Your task to perform on an android device: turn on notifications settings in the gmail app Image 0: 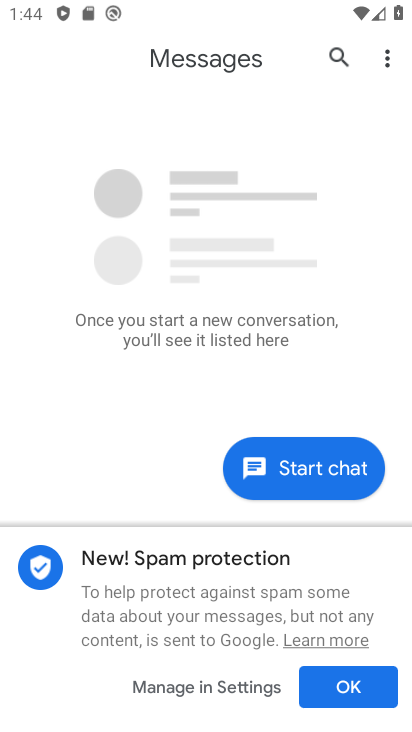
Step 0: press home button
Your task to perform on an android device: turn on notifications settings in the gmail app Image 1: 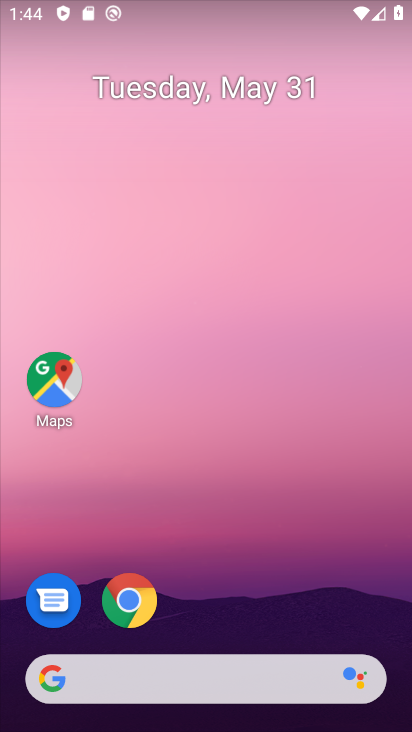
Step 1: drag from (228, 627) to (249, 10)
Your task to perform on an android device: turn on notifications settings in the gmail app Image 2: 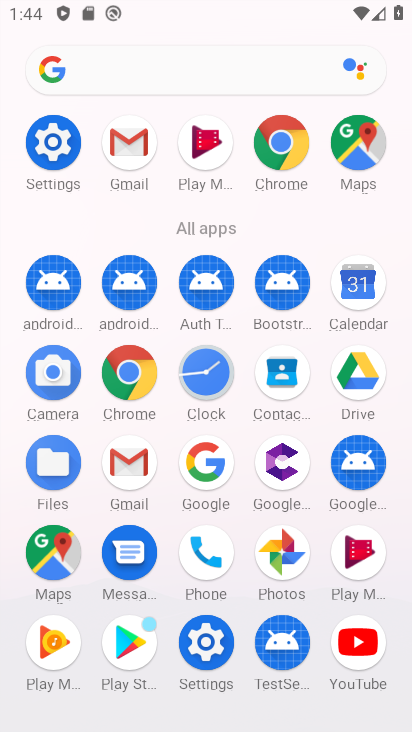
Step 2: click (127, 450)
Your task to perform on an android device: turn on notifications settings in the gmail app Image 3: 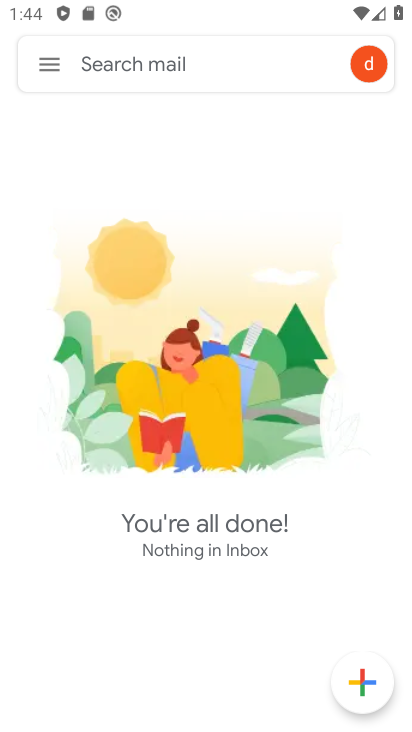
Step 3: click (51, 60)
Your task to perform on an android device: turn on notifications settings in the gmail app Image 4: 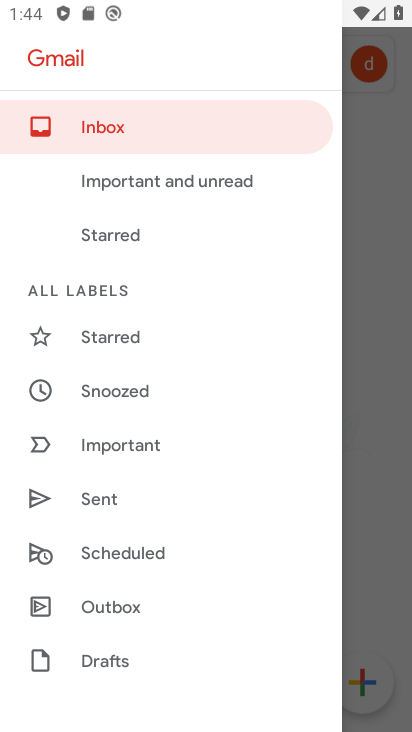
Step 4: drag from (209, 639) to (214, 92)
Your task to perform on an android device: turn on notifications settings in the gmail app Image 5: 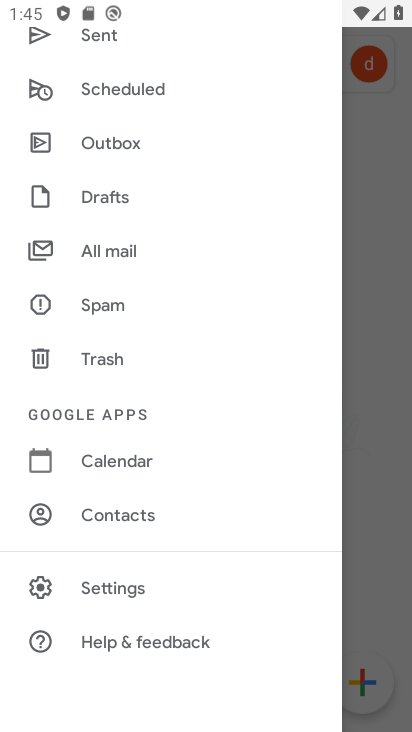
Step 5: click (158, 574)
Your task to perform on an android device: turn on notifications settings in the gmail app Image 6: 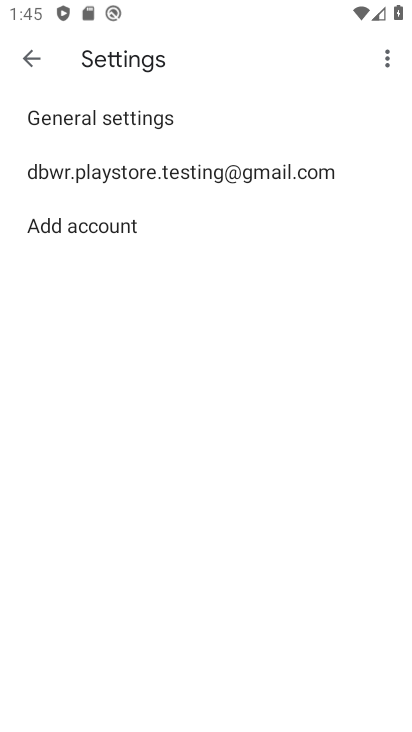
Step 6: click (179, 121)
Your task to perform on an android device: turn on notifications settings in the gmail app Image 7: 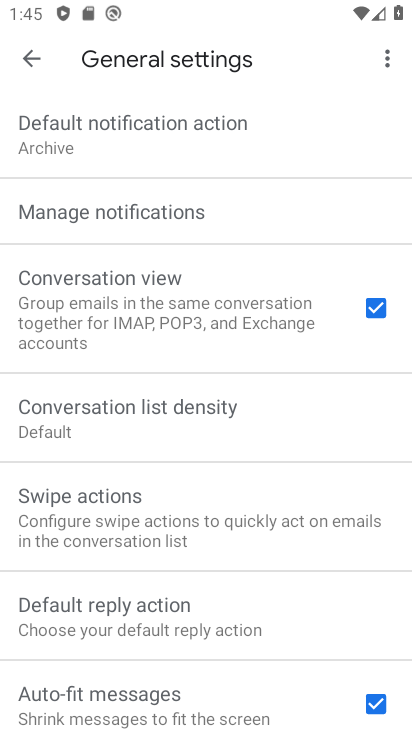
Step 7: click (211, 215)
Your task to perform on an android device: turn on notifications settings in the gmail app Image 8: 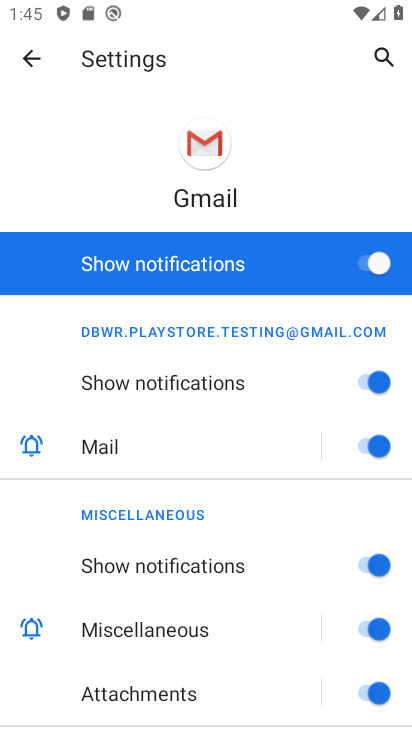
Step 8: task complete